Your task to perform on an android device: turn off location history Image 0: 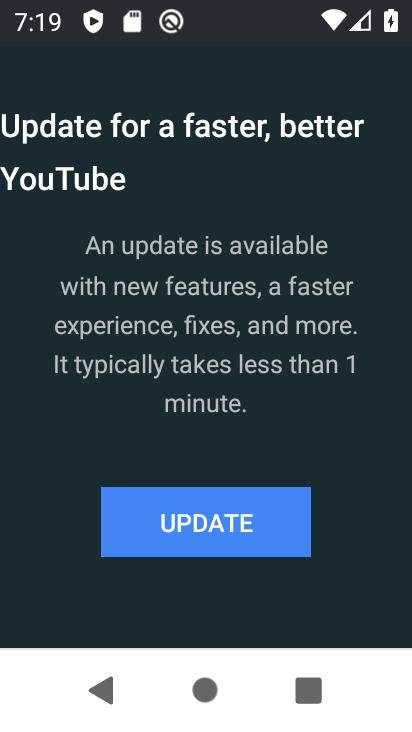
Step 0: click (258, 521)
Your task to perform on an android device: turn off location history Image 1: 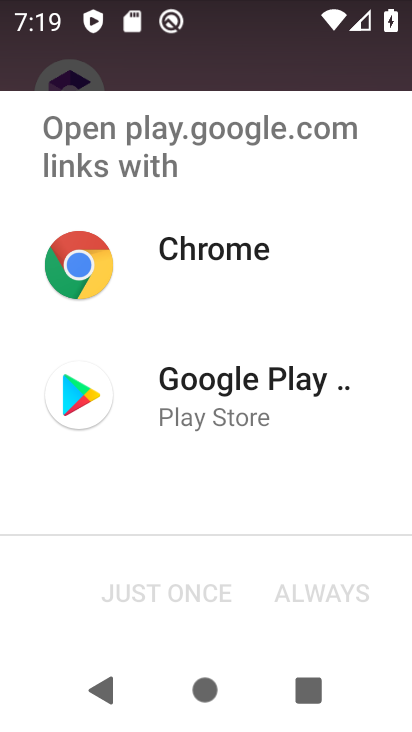
Step 1: drag from (355, 631) to (360, 338)
Your task to perform on an android device: turn off location history Image 2: 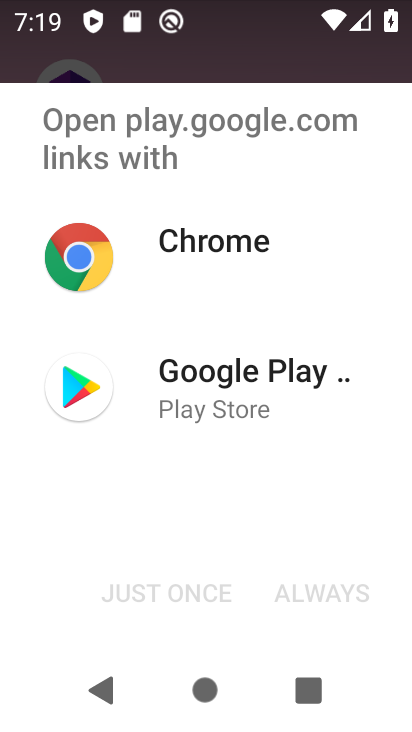
Step 2: press home button
Your task to perform on an android device: turn off location history Image 3: 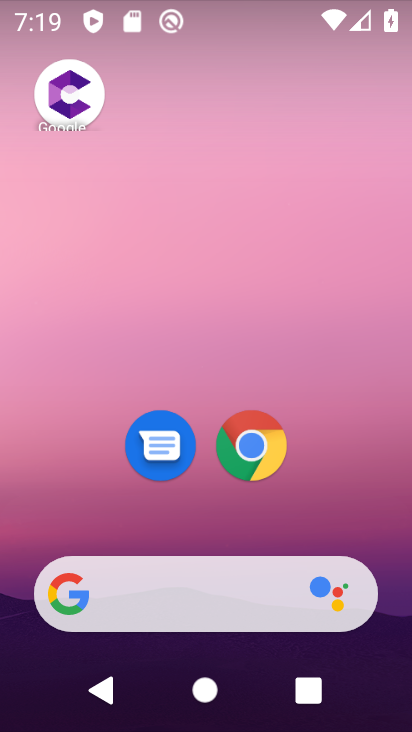
Step 3: click (324, 40)
Your task to perform on an android device: turn off location history Image 4: 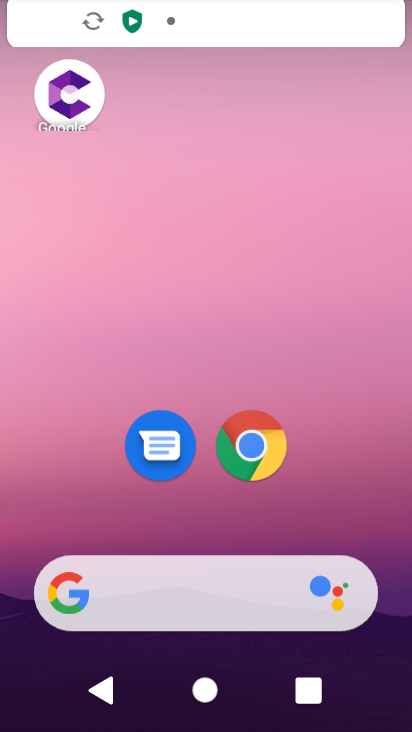
Step 4: drag from (393, 532) to (355, 75)
Your task to perform on an android device: turn off location history Image 5: 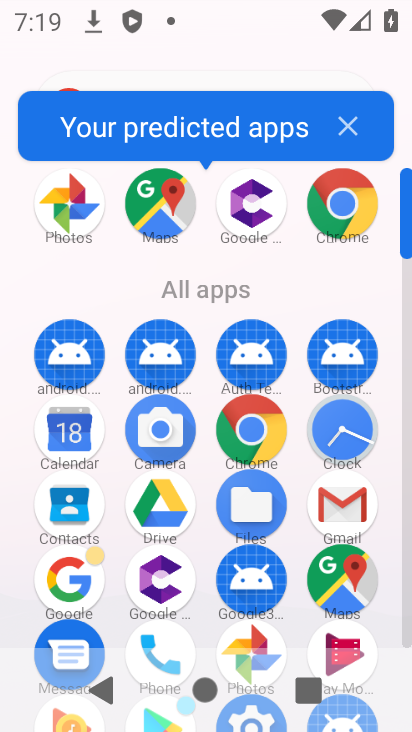
Step 5: drag from (368, 363) to (351, 221)
Your task to perform on an android device: turn off location history Image 6: 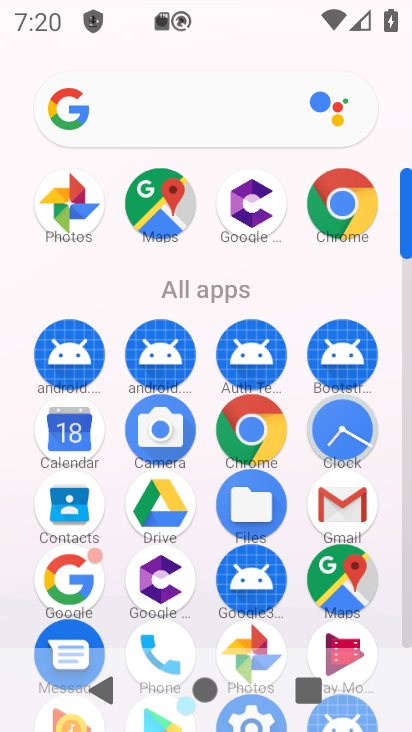
Step 6: drag from (216, 601) to (249, 237)
Your task to perform on an android device: turn off location history Image 7: 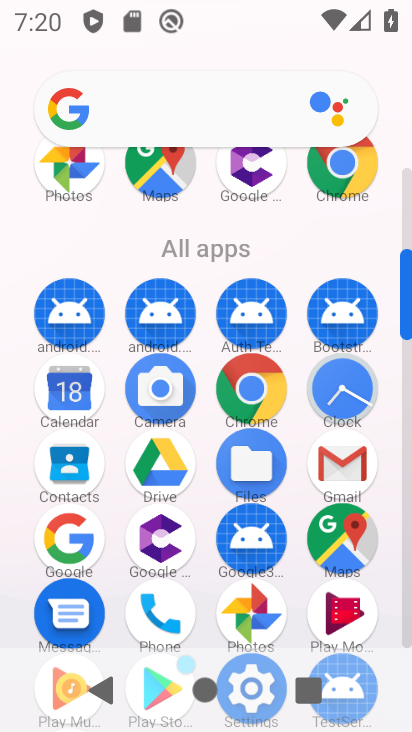
Step 7: drag from (206, 544) to (222, 337)
Your task to perform on an android device: turn off location history Image 8: 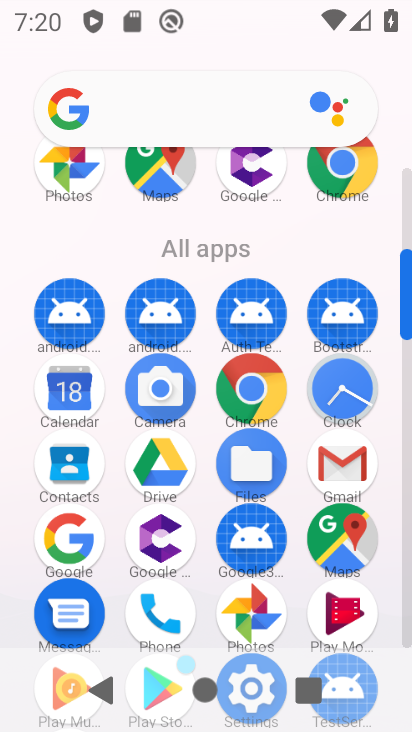
Step 8: drag from (210, 524) to (225, 230)
Your task to perform on an android device: turn off location history Image 9: 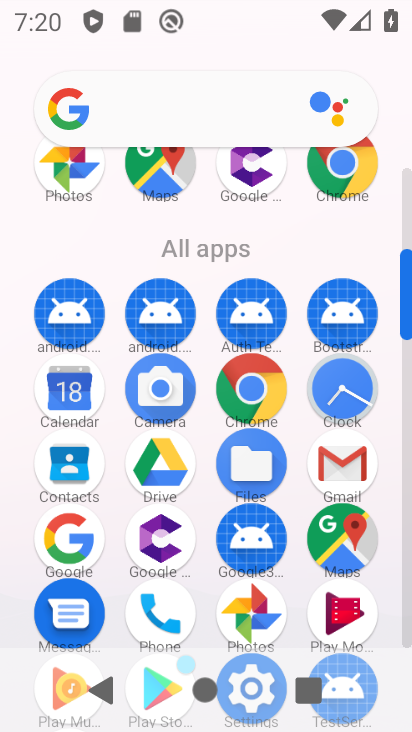
Step 9: drag from (406, 420) to (411, 248)
Your task to perform on an android device: turn off location history Image 10: 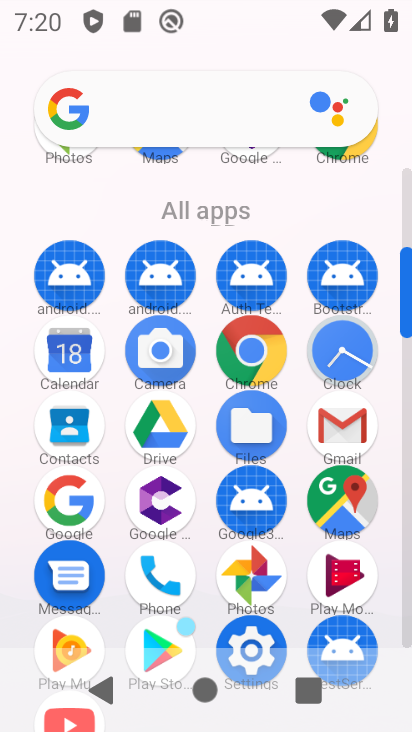
Step 10: click (246, 527)
Your task to perform on an android device: turn off location history Image 11: 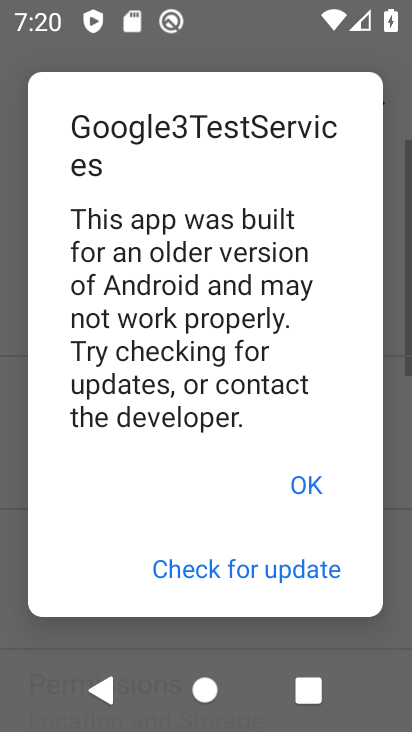
Step 11: press back button
Your task to perform on an android device: turn off location history Image 12: 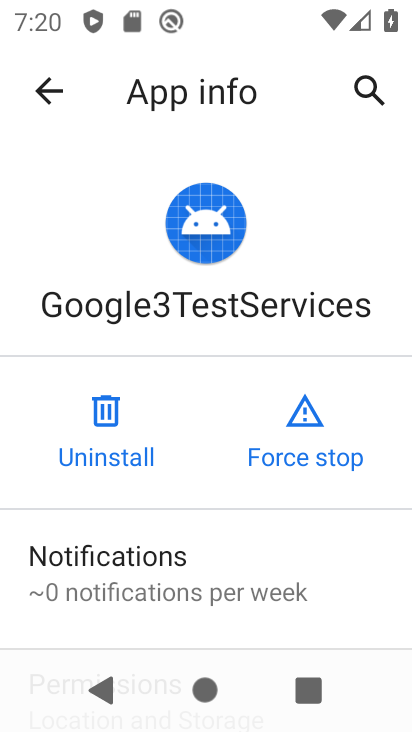
Step 12: press back button
Your task to perform on an android device: turn off location history Image 13: 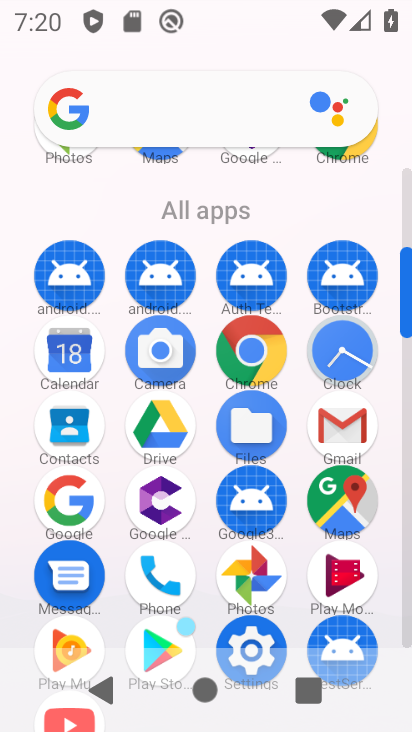
Step 13: click (235, 619)
Your task to perform on an android device: turn off location history Image 14: 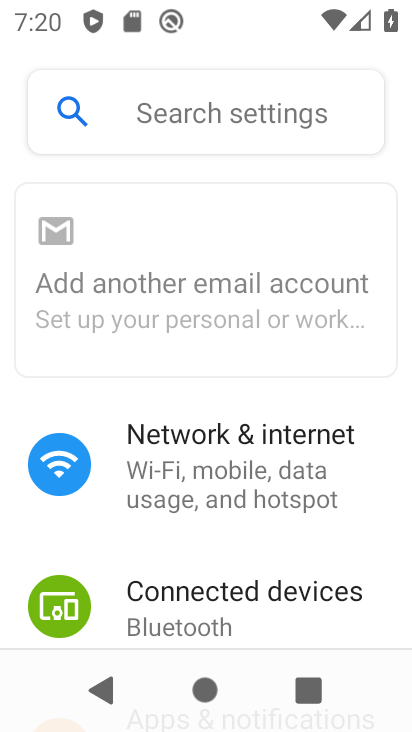
Step 14: drag from (333, 394) to (324, 170)
Your task to perform on an android device: turn off location history Image 15: 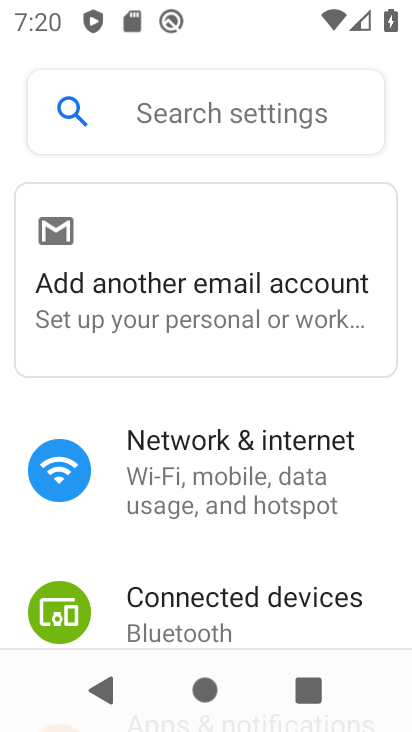
Step 15: drag from (321, 604) to (344, 192)
Your task to perform on an android device: turn off location history Image 16: 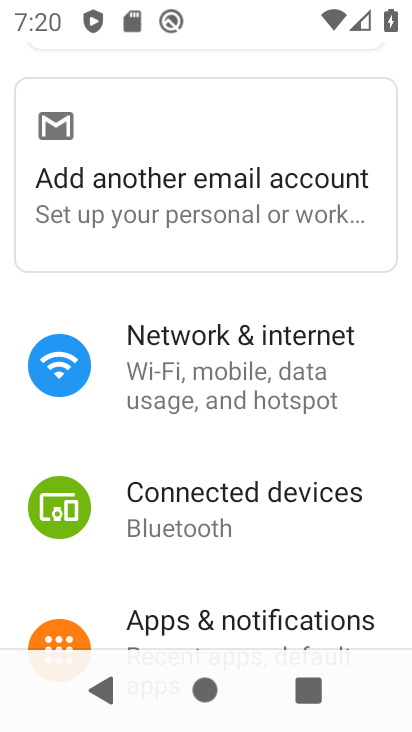
Step 16: drag from (401, 347) to (407, 187)
Your task to perform on an android device: turn off location history Image 17: 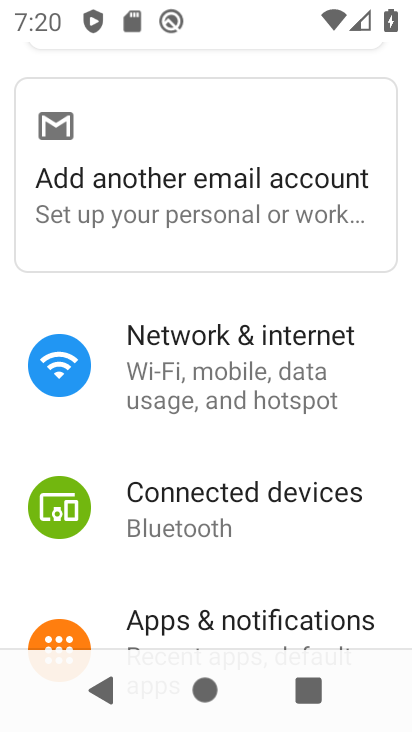
Step 17: drag from (299, 612) to (342, 297)
Your task to perform on an android device: turn off location history Image 18: 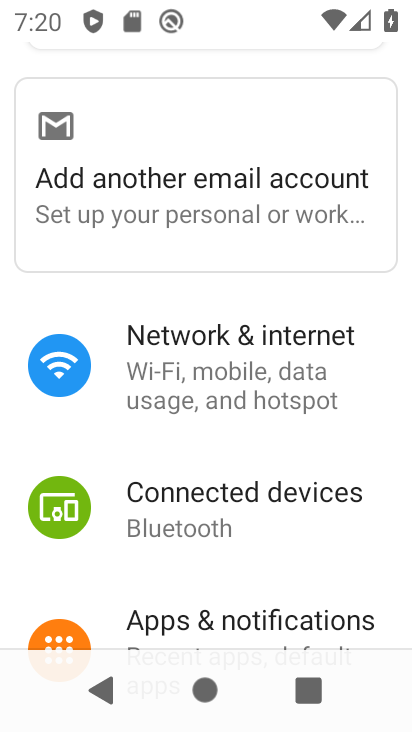
Step 18: drag from (338, 564) to (379, 254)
Your task to perform on an android device: turn off location history Image 19: 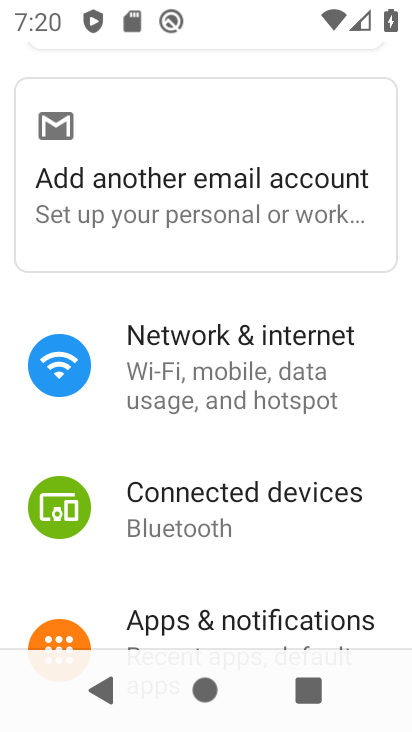
Step 19: drag from (326, 447) to (318, 246)
Your task to perform on an android device: turn off location history Image 20: 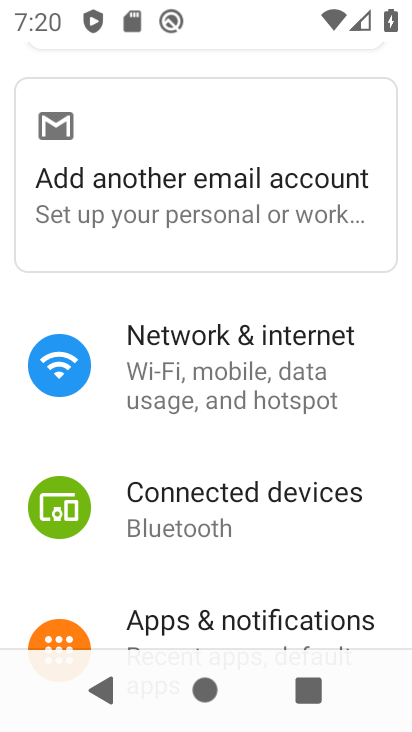
Step 20: drag from (326, 522) to (337, 116)
Your task to perform on an android device: turn off location history Image 21: 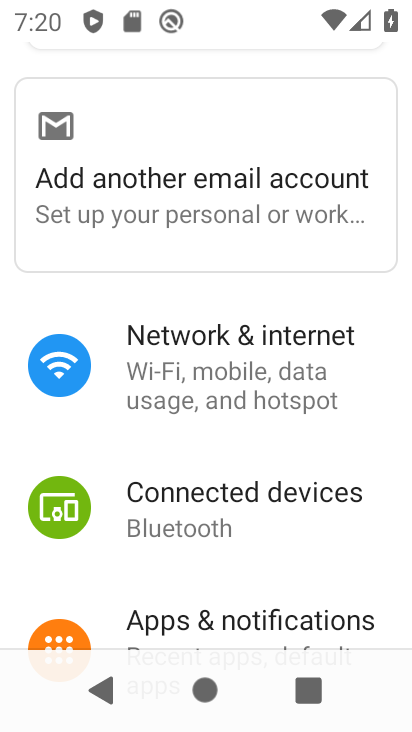
Step 21: drag from (385, 605) to (398, 216)
Your task to perform on an android device: turn off location history Image 22: 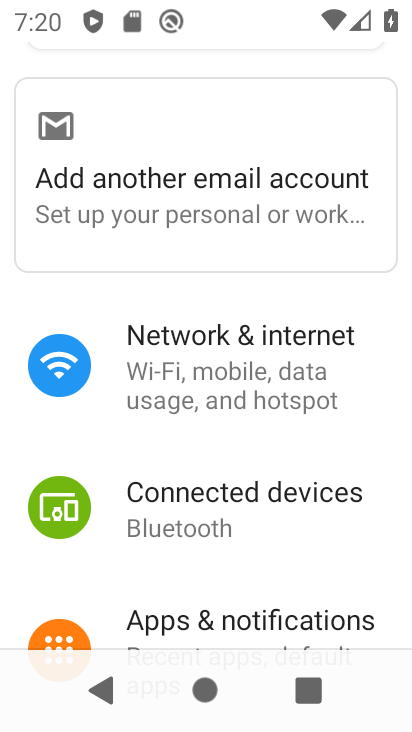
Step 22: drag from (380, 600) to (397, 227)
Your task to perform on an android device: turn off location history Image 23: 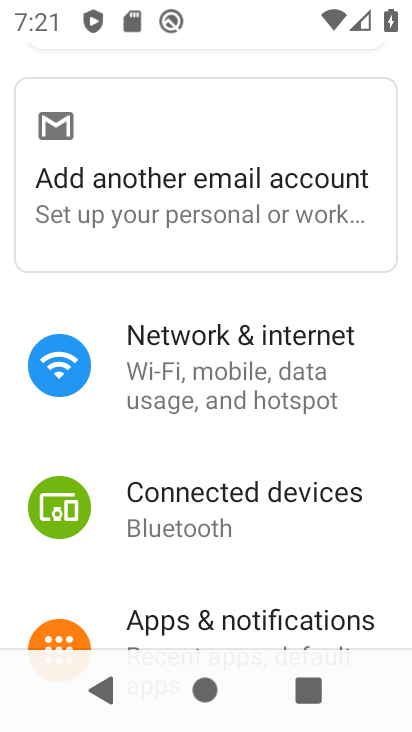
Step 23: drag from (378, 609) to (389, 182)
Your task to perform on an android device: turn off location history Image 24: 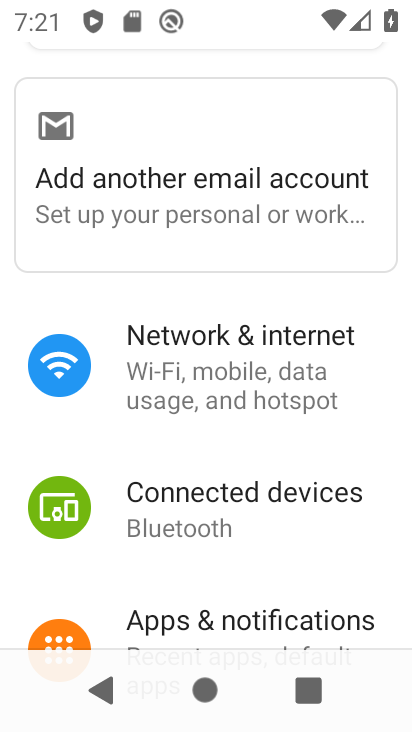
Step 24: drag from (380, 611) to (394, 198)
Your task to perform on an android device: turn off location history Image 25: 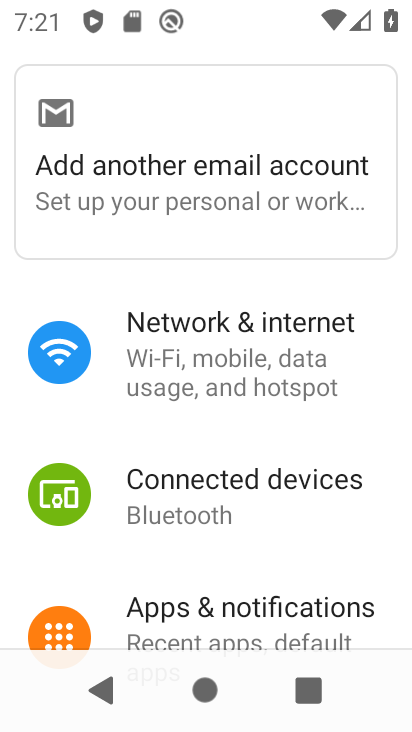
Step 25: drag from (390, 612) to (395, 191)
Your task to perform on an android device: turn off location history Image 26: 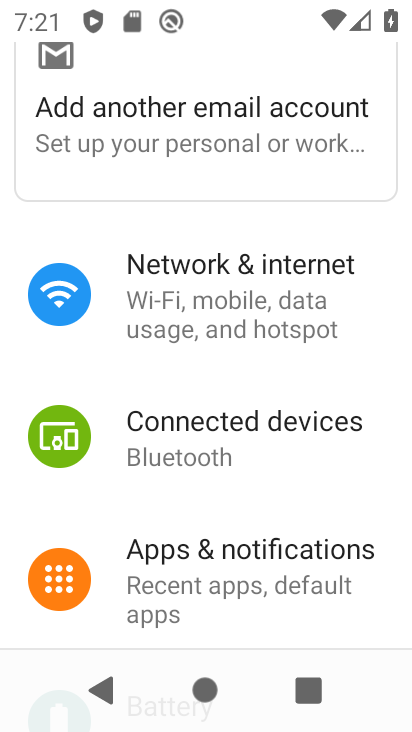
Step 26: drag from (391, 435) to (386, 164)
Your task to perform on an android device: turn off location history Image 27: 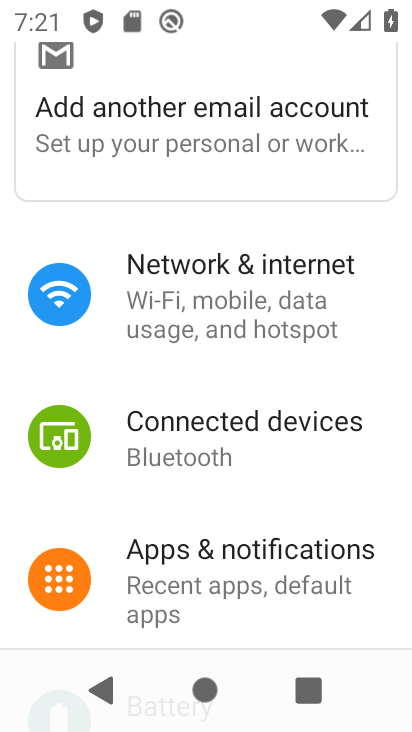
Step 27: click (395, 286)
Your task to perform on an android device: turn off location history Image 28: 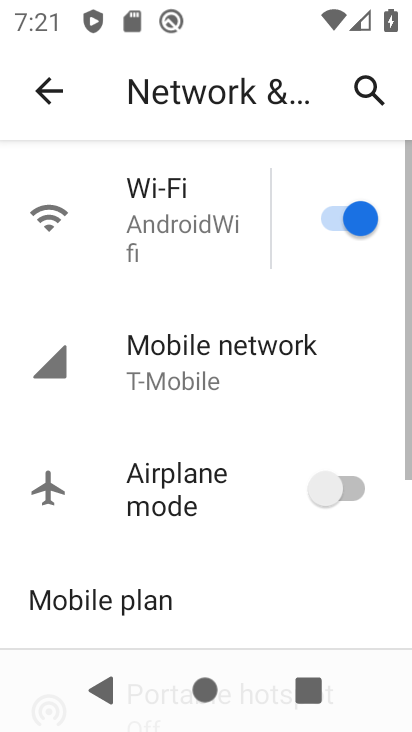
Step 28: task complete